Your task to perform on an android device: star an email in the gmail app Image 0: 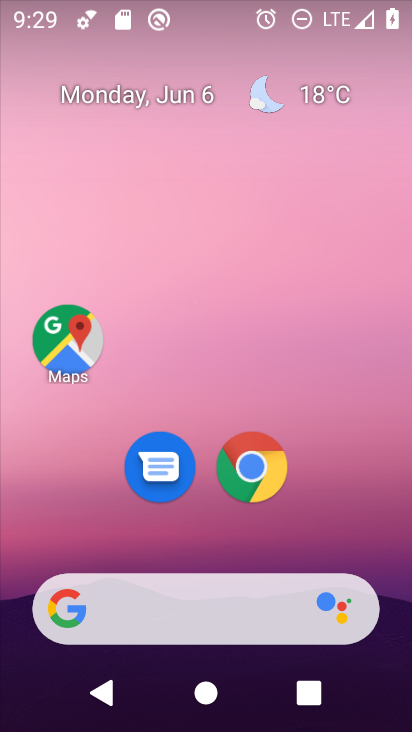
Step 0: drag from (364, 525) to (366, 156)
Your task to perform on an android device: star an email in the gmail app Image 1: 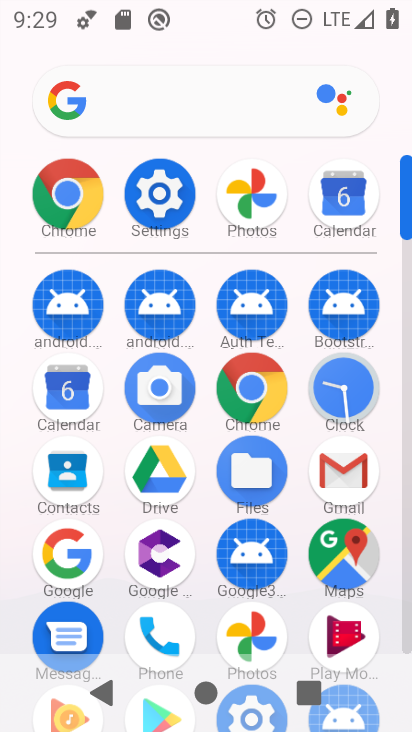
Step 1: click (330, 463)
Your task to perform on an android device: star an email in the gmail app Image 2: 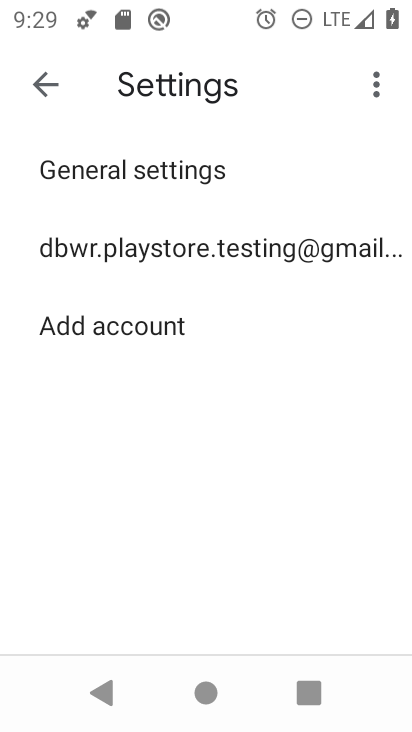
Step 2: press back button
Your task to perform on an android device: star an email in the gmail app Image 3: 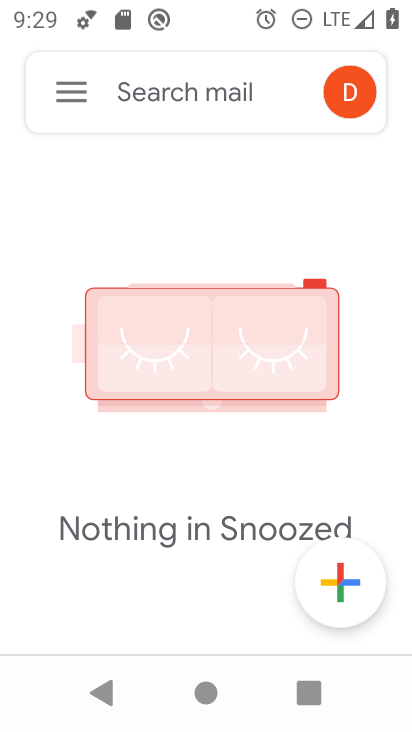
Step 3: click (78, 97)
Your task to perform on an android device: star an email in the gmail app Image 4: 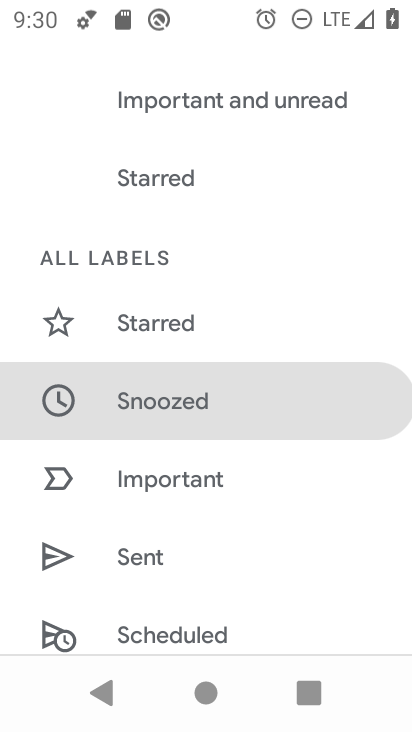
Step 4: drag from (332, 216) to (321, 305)
Your task to perform on an android device: star an email in the gmail app Image 5: 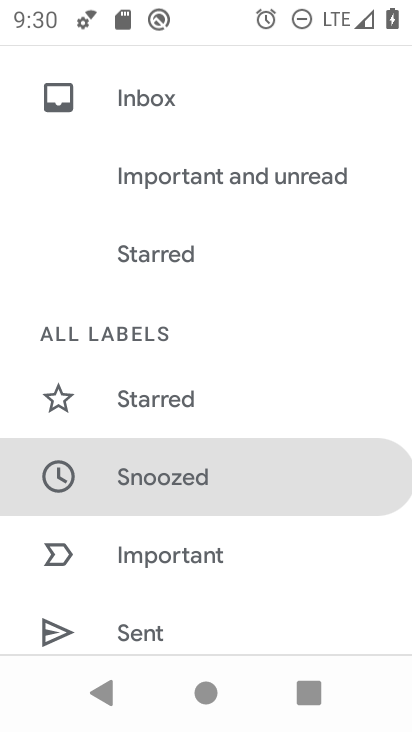
Step 5: drag from (318, 216) to (311, 343)
Your task to perform on an android device: star an email in the gmail app Image 6: 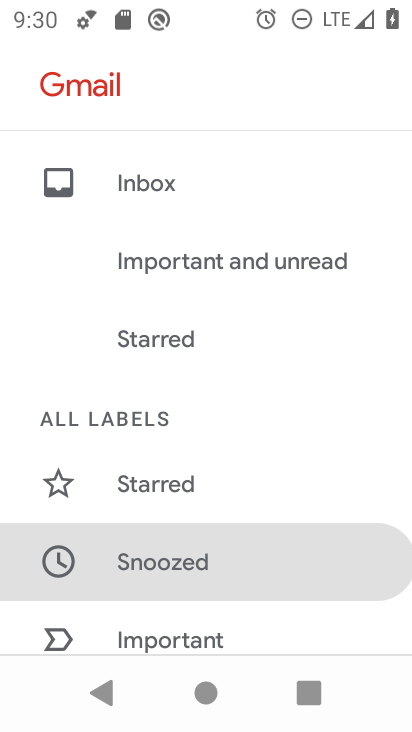
Step 6: drag from (321, 183) to (335, 335)
Your task to perform on an android device: star an email in the gmail app Image 7: 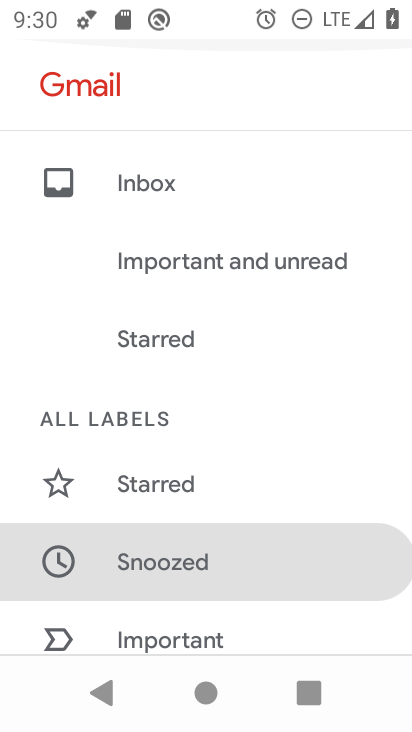
Step 7: click (176, 174)
Your task to perform on an android device: star an email in the gmail app Image 8: 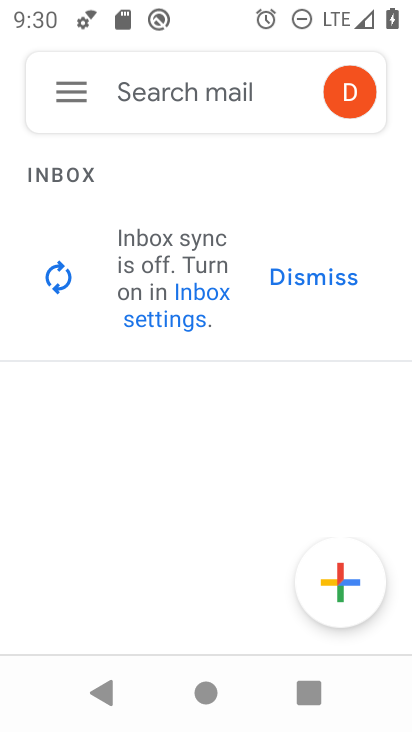
Step 8: task complete